Your task to perform on an android device: turn on translation in the chrome app Image 0: 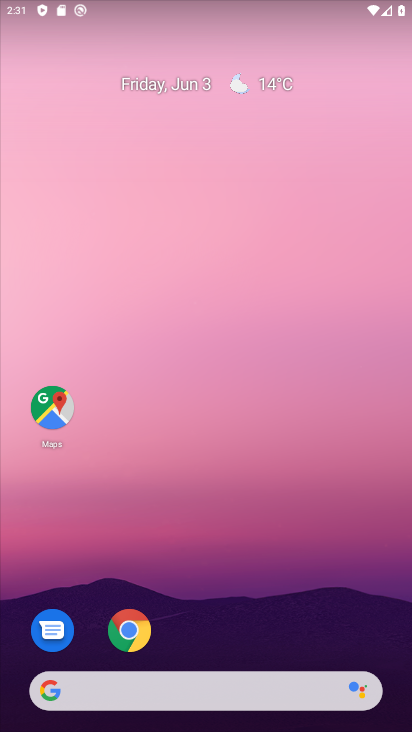
Step 0: drag from (283, 621) to (184, 166)
Your task to perform on an android device: turn on translation in the chrome app Image 1: 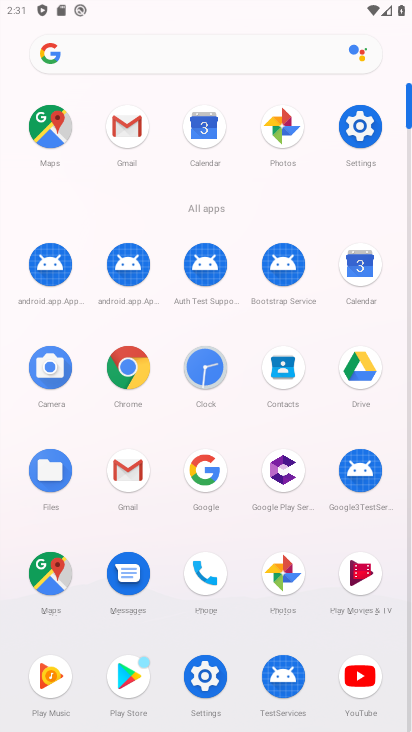
Step 1: click (141, 376)
Your task to perform on an android device: turn on translation in the chrome app Image 2: 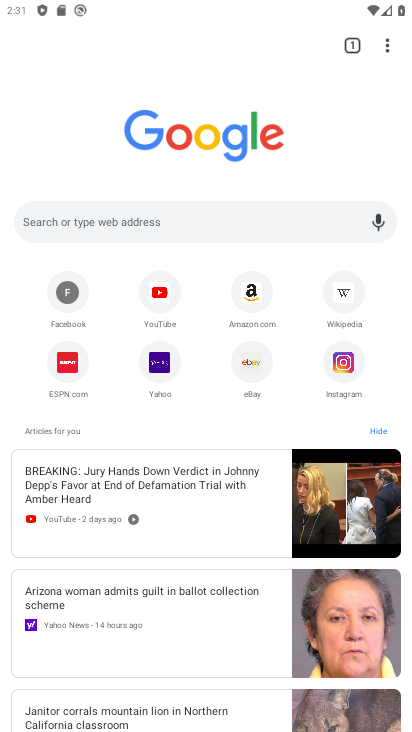
Step 2: click (387, 57)
Your task to perform on an android device: turn on translation in the chrome app Image 3: 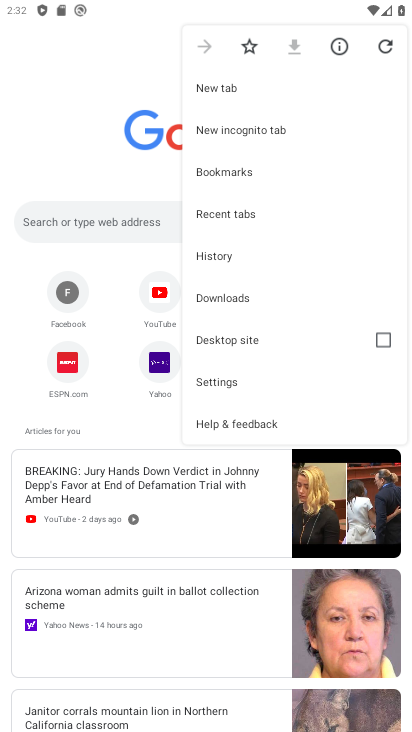
Step 3: click (241, 382)
Your task to perform on an android device: turn on translation in the chrome app Image 4: 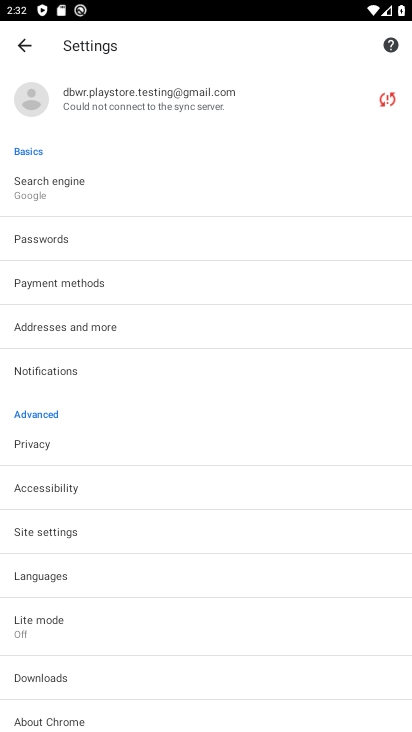
Step 4: click (146, 580)
Your task to perform on an android device: turn on translation in the chrome app Image 5: 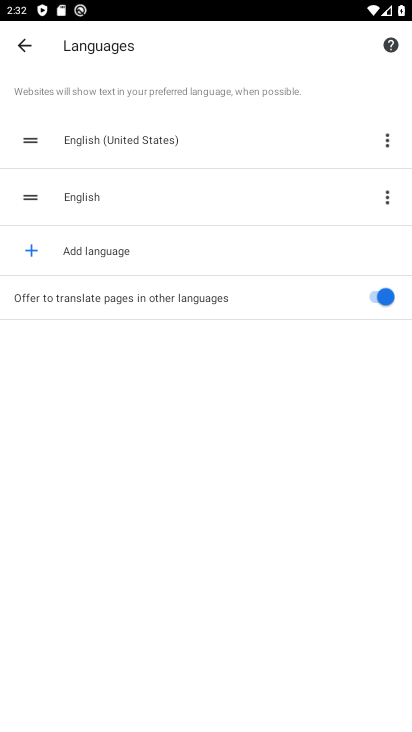
Step 5: task complete